Your task to perform on an android device: Show me productivity apps on the Play Store Image 0: 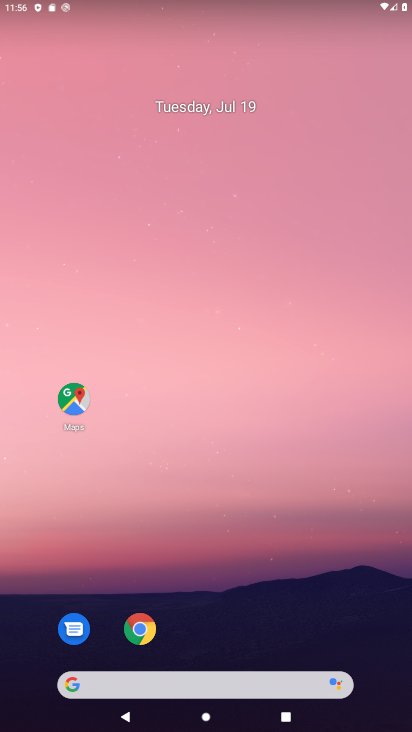
Step 0: click (187, 49)
Your task to perform on an android device: Show me productivity apps on the Play Store Image 1: 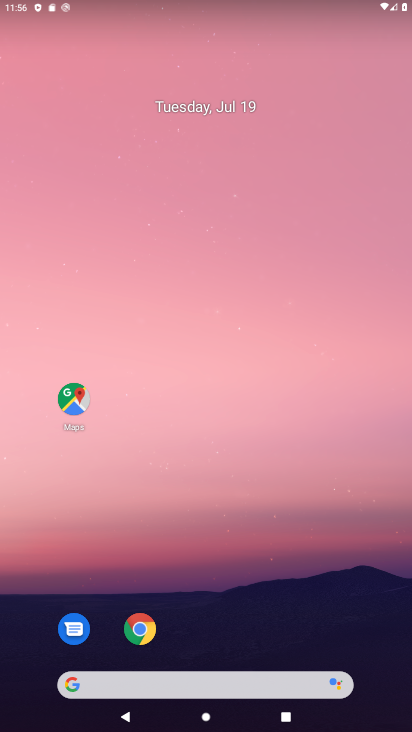
Step 1: drag from (327, 618) to (271, 163)
Your task to perform on an android device: Show me productivity apps on the Play Store Image 2: 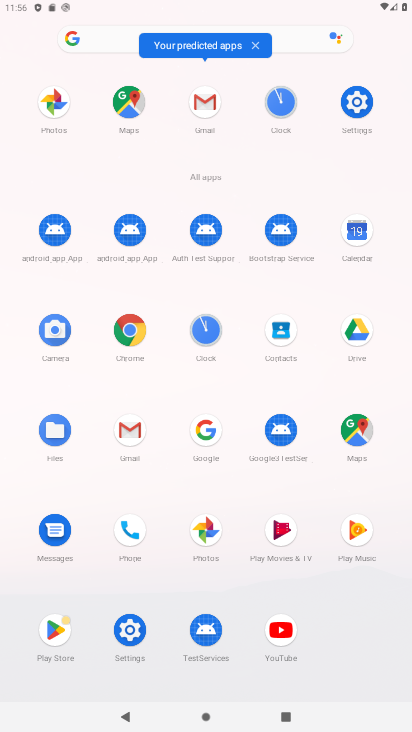
Step 2: click (56, 635)
Your task to perform on an android device: Show me productivity apps on the Play Store Image 3: 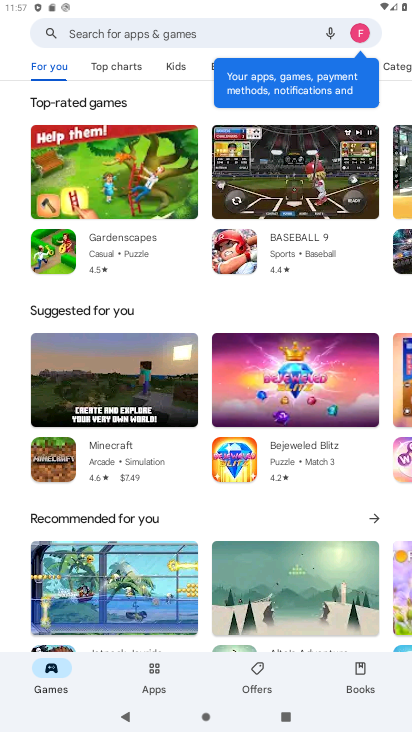
Step 3: click (153, 681)
Your task to perform on an android device: Show me productivity apps on the Play Store Image 4: 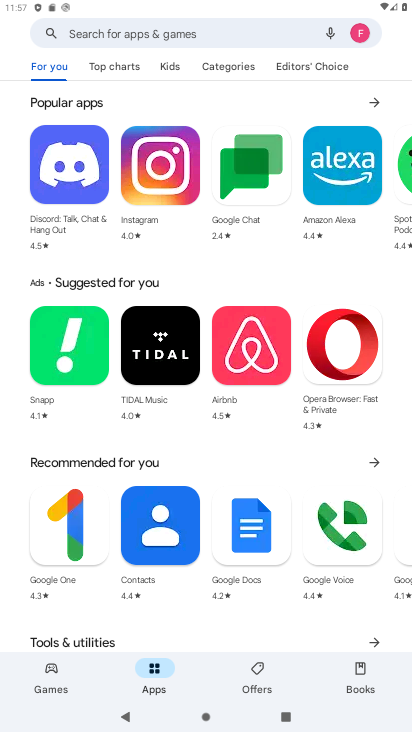
Step 4: click (220, 64)
Your task to perform on an android device: Show me productivity apps on the Play Store Image 5: 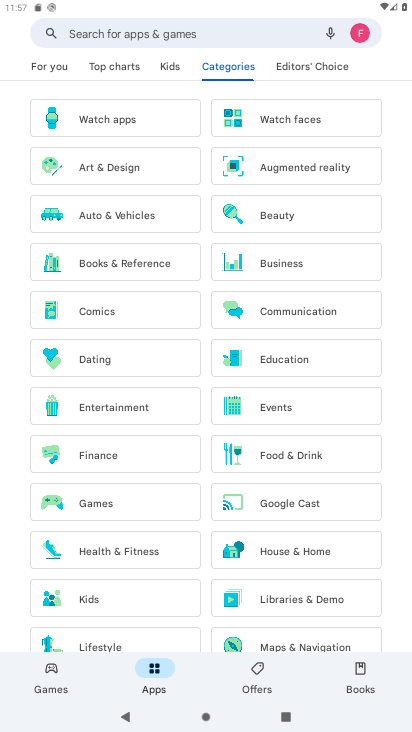
Step 5: drag from (392, 579) to (372, 366)
Your task to perform on an android device: Show me productivity apps on the Play Store Image 6: 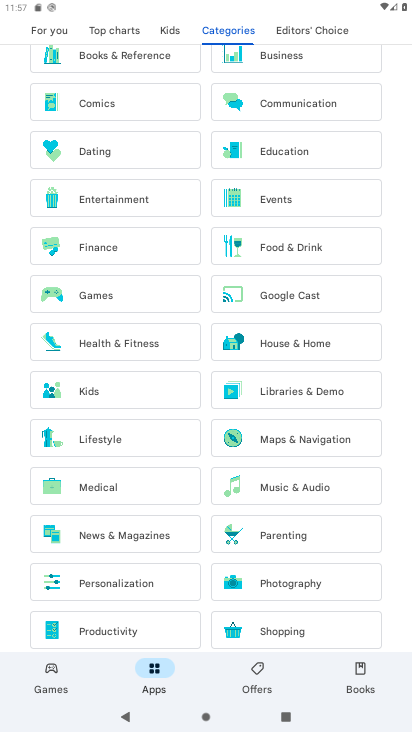
Step 6: click (160, 629)
Your task to perform on an android device: Show me productivity apps on the Play Store Image 7: 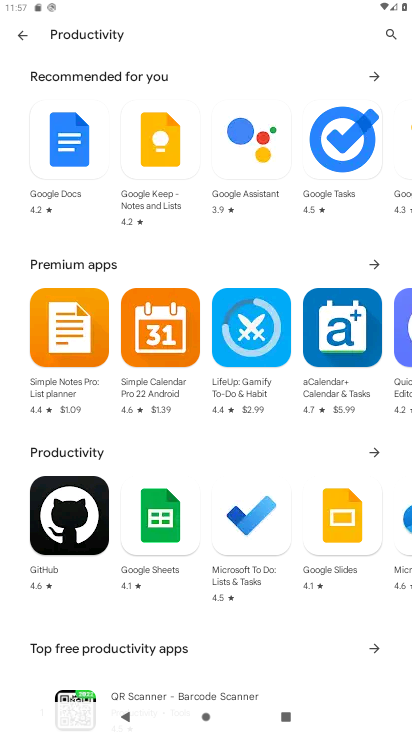
Step 7: task complete